Your task to perform on an android device: check data usage Image 0: 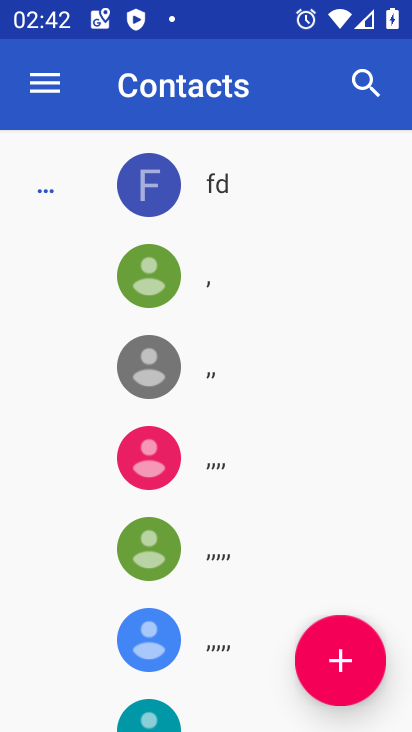
Step 0: press home button
Your task to perform on an android device: check data usage Image 1: 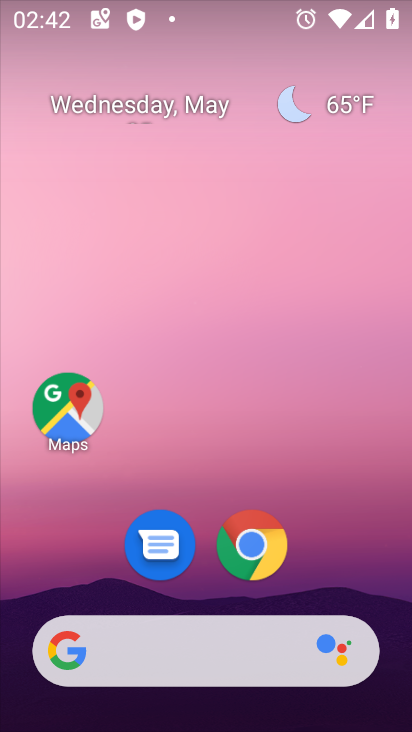
Step 1: drag from (349, 474) to (207, 2)
Your task to perform on an android device: check data usage Image 2: 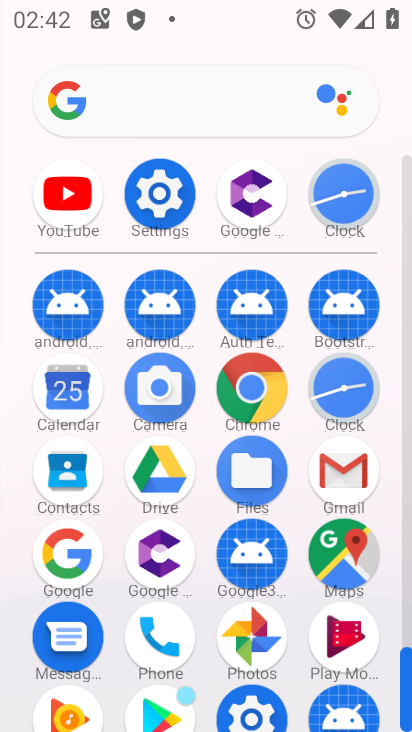
Step 2: click (161, 184)
Your task to perform on an android device: check data usage Image 3: 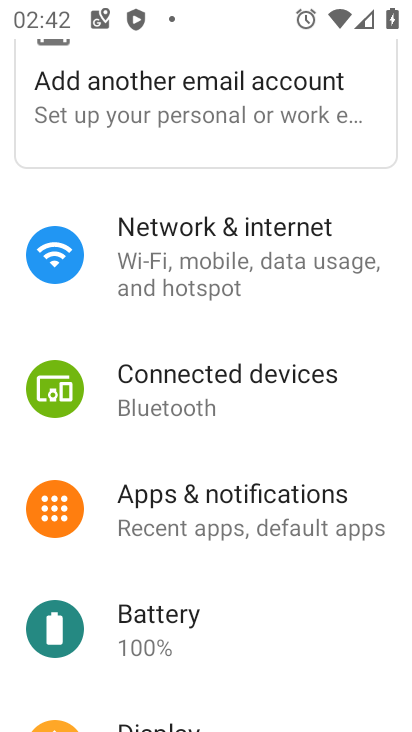
Step 3: click (227, 266)
Your task to perform on an android device: check data usage Image 4: 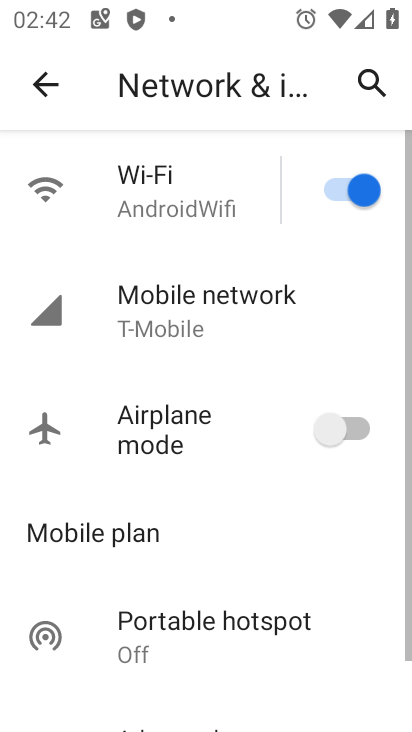
Step 4: click (192, 315)
Your task to perform on an android device: check data usage Image 5: 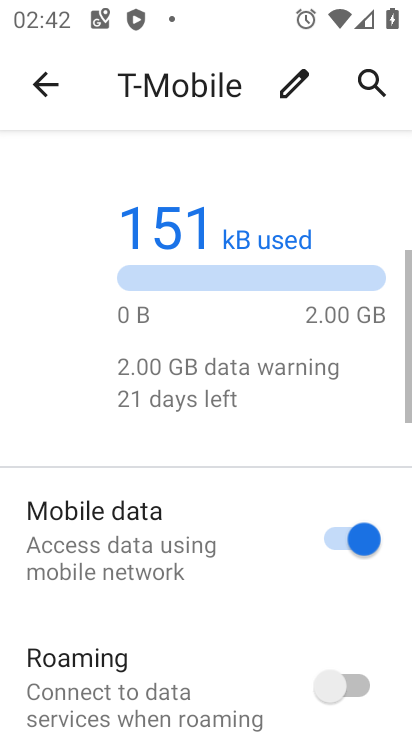
Step 5: task complete